Your task to perform on an android device: What's on my calendar today? Image 0: 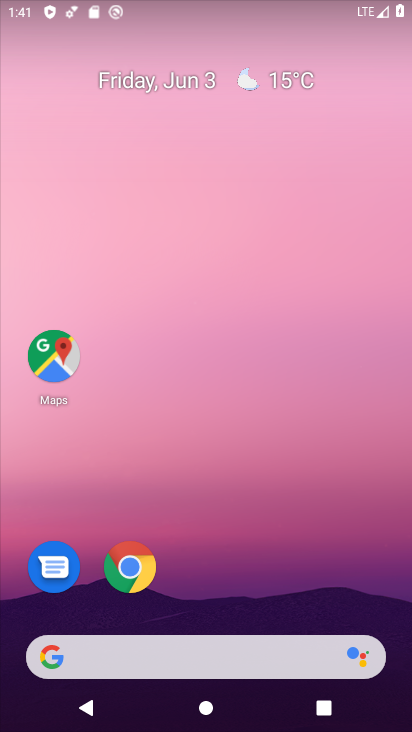
Step 0: drag from (173, 639) to (227, 87)
Your task to perform on an android device: What's on my calendar today? Image 1: 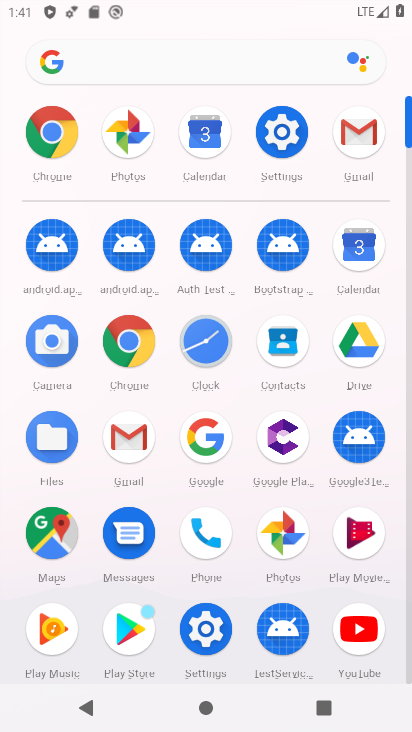
Step 1: click (211, 135)
Your task to perform on an android device: What's on my calendar today? Image 2: 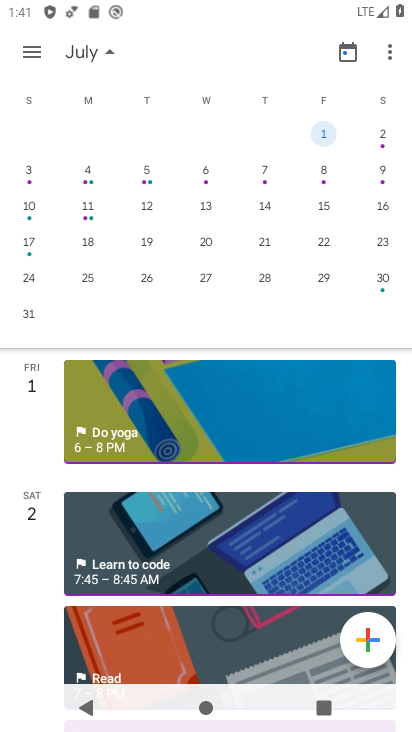
Step 2: drag from (64, 188) to (388, 176)
Your task to perform on an android device: What's on my calendar today? Image 3: 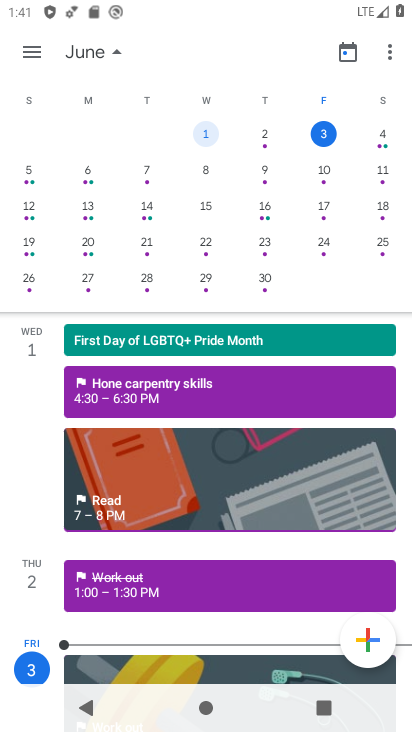
Step 3: drag from (193, 657) to (211, 358)
Your task to perform on an android device: What's on my calendar today? Image 4: 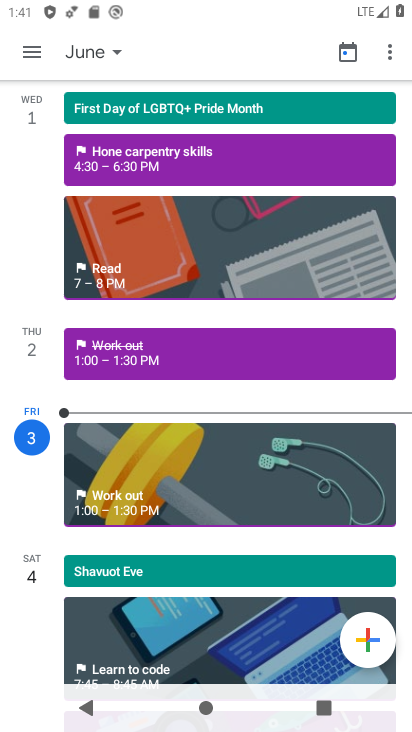
Step 4: click (174, 507)
Your task to perform on an android device: What's on my calendar today? Image 5: 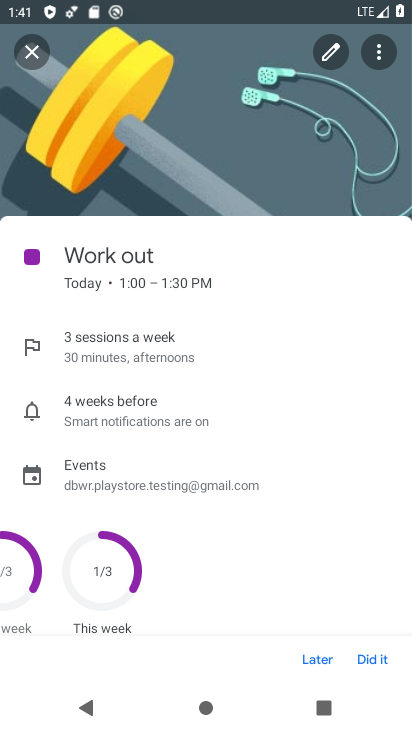
Step 5: task complete